Your task to perform on an android device: create a new album in the google photos Image 0: 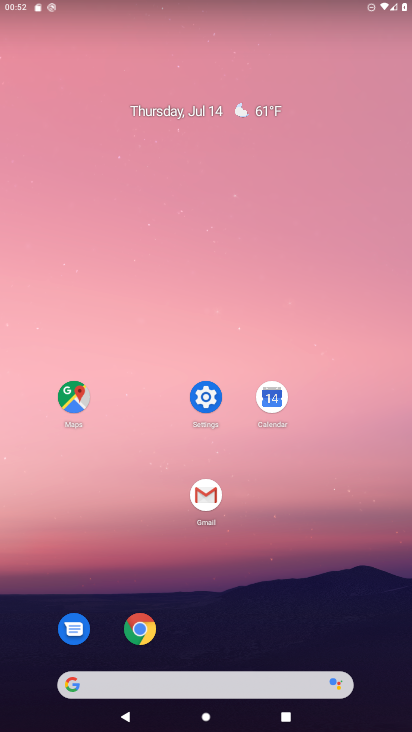
Step 0: drag from (393, 633) to (280, 121)
Your task to perform on an android device: create a new album in the google photos Image 1: 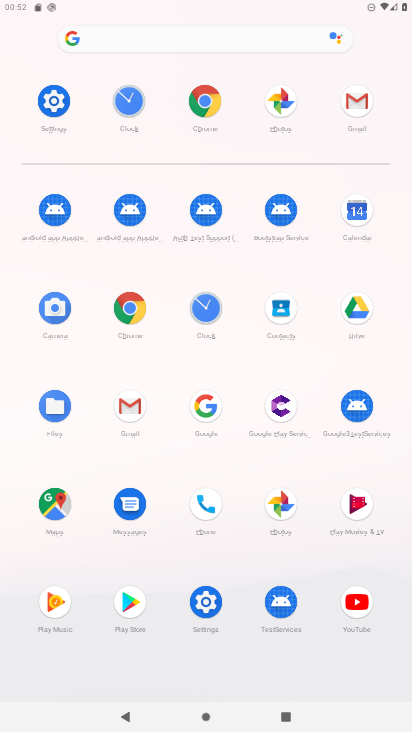
Step 1: click (265, 499)
Your task to perform on an android device: create a new album in the google photos Image 2: 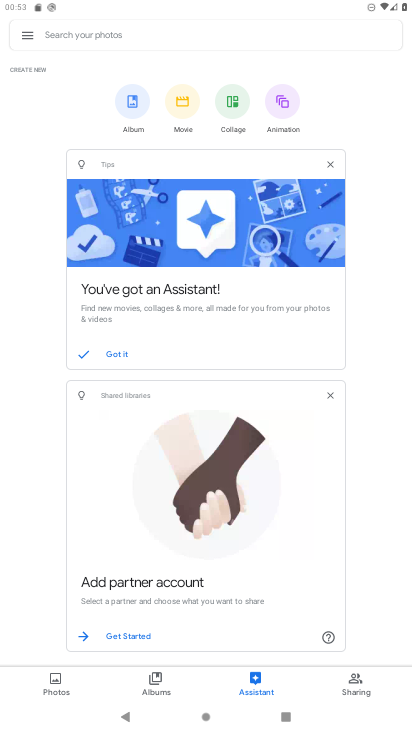
Step 2: task complete